Your task to perform on an android device: change your default location settings in chrome Image 0: 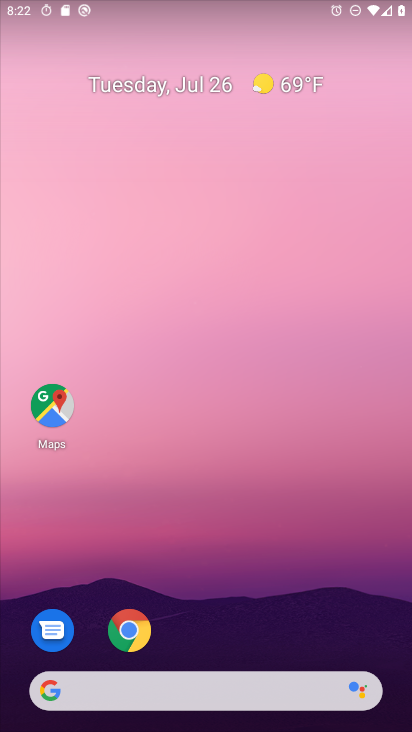
Step 0: drag from (250, 548) to (236, 127)
Your task to perform on an android device: change your default location settings in chrome Image 1: 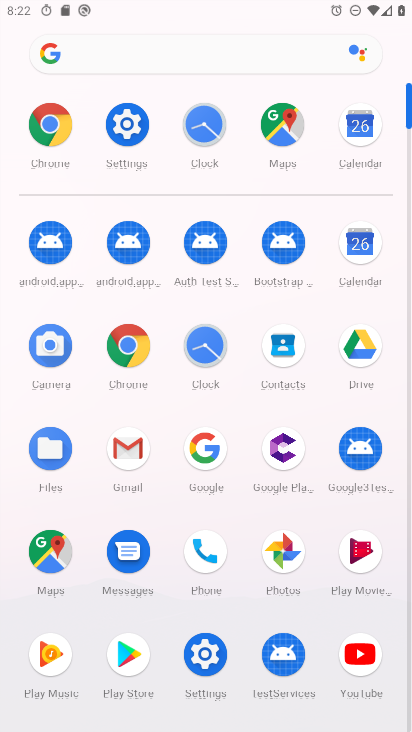
Step 1: click (125, 369)
Your task to perform on an android device: change your default location settings in chrome Image 2: 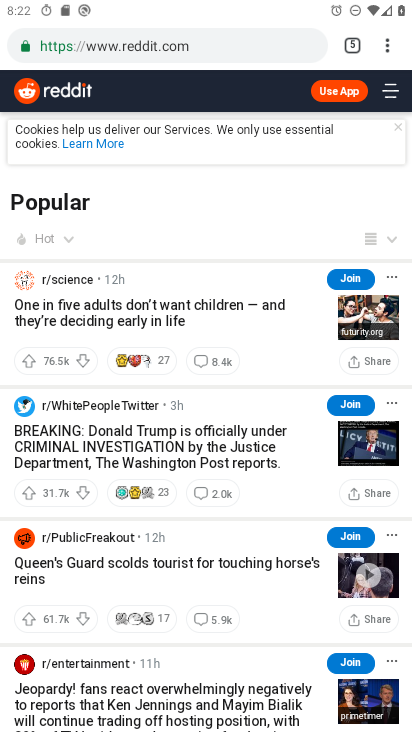
Step 2: click (385, 49)
Your task to perform on an android device: change your default location settings in chrome Image 3: 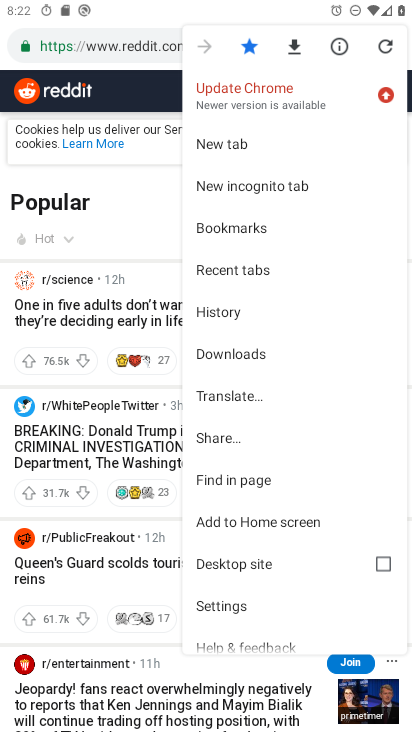
Step 3: drag from (308, 499) to (331, 260)
Your task to perform on an android device: change your default location settings in chrome Image 4: 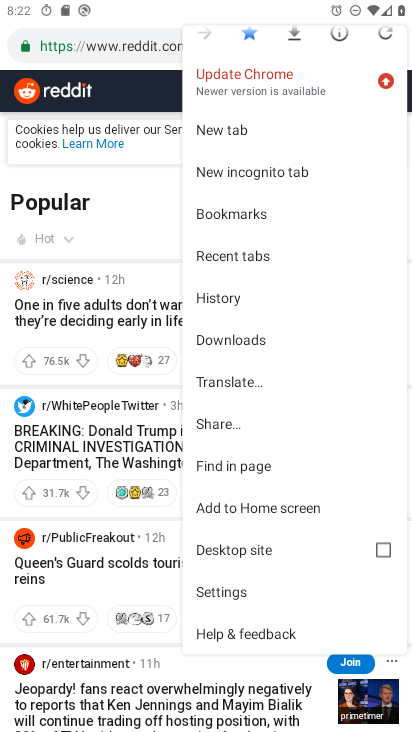
Step 4: click (263, 598)
Your task to perform on an android device: change your default location settings in chrome Image 5: 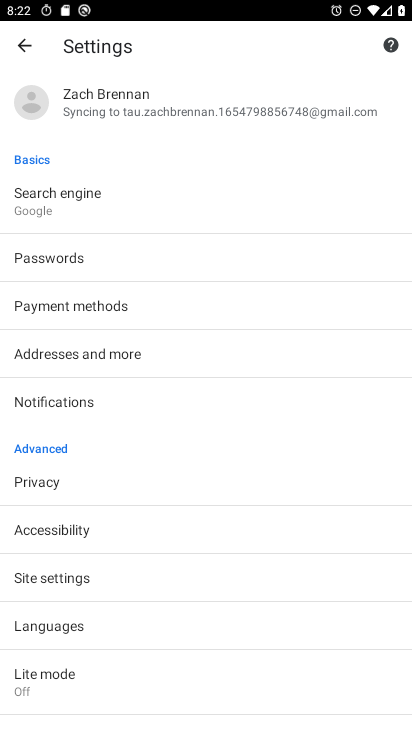
Step 5: click (96, 570)
Your task to perform on an android device: change your default location settings in chrome Image 6: 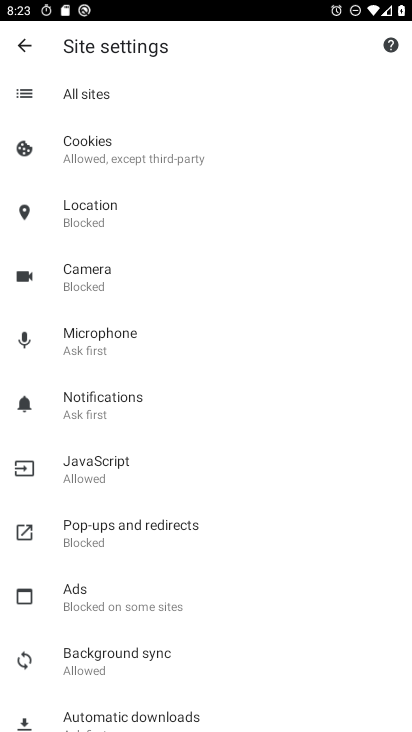
Step 6: click (145, 213)
Your task to perform on an android device: change your default location settings in chrome Image 7: 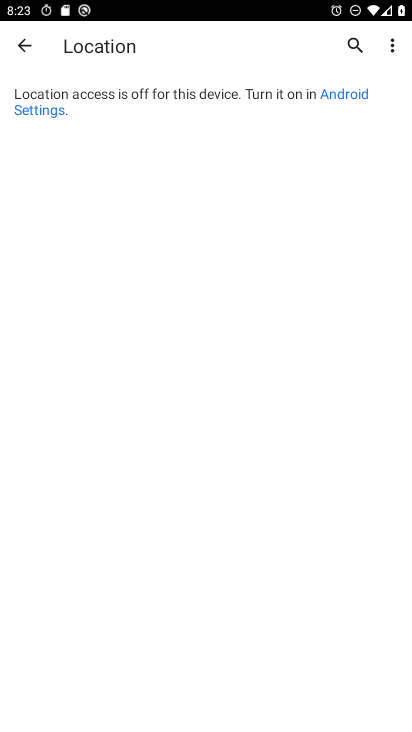
Step 7: click (345, 90)
Your task to perform on an android device: change your default location settings in chrome Image 8: 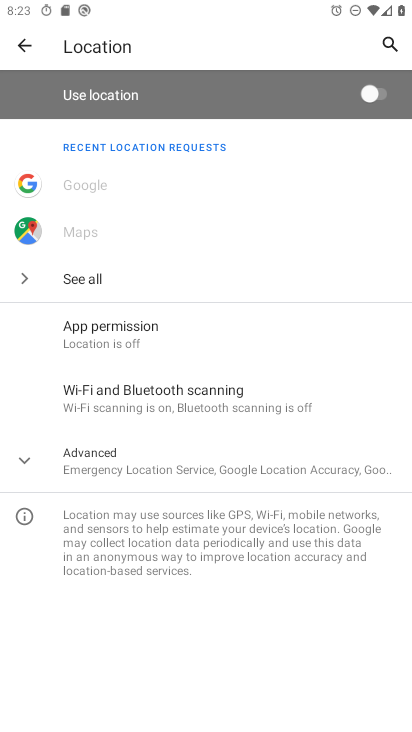
Step 8: click (366, 101)
Your task to perform on an android device: change your default location settings in chrome Image 9: 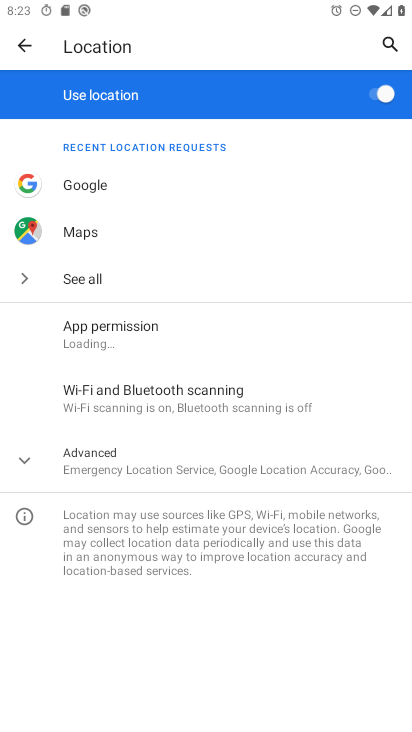
Step 9: task complete